Your task to perform on an android device: Toggle the flashlight Image 0: 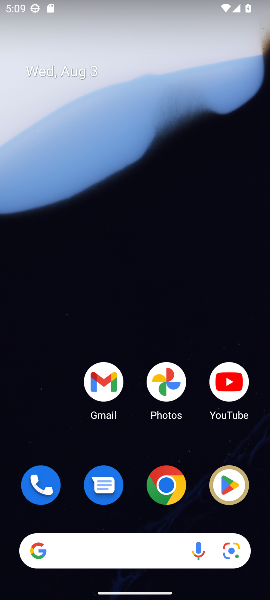
Step 0: drag from (135, 515) to (150, 60)
Your task to perform on an android device: Toggle the flashlight Image 1: 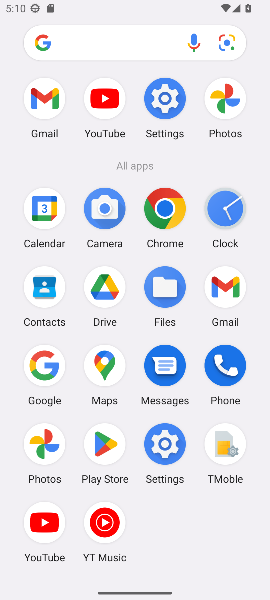
Step 1: click (166, 105)
Your task to perform on an android device: Toggle the flashlight Image 2: 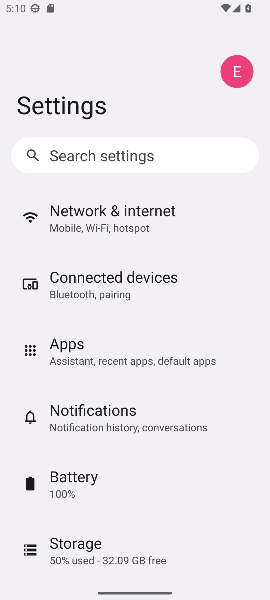
Step 2: click (133, 149)
Your task to perform on an android device: Toggle the flashlight Image 3: 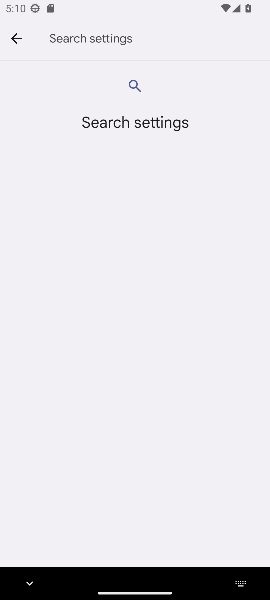
Step 3: type "flashlight"
Your task to perform on an android device: Toggle the flashlight Image 4: 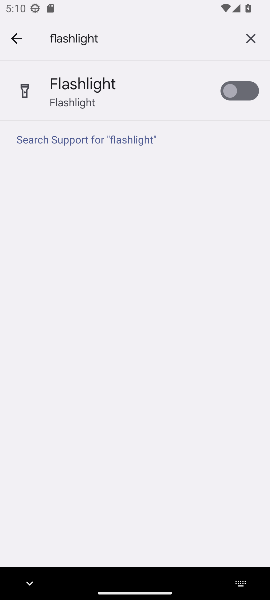
Step 4: click (259, 89)
Your task to perform on an android device: Toggle the flashlight Image 5: 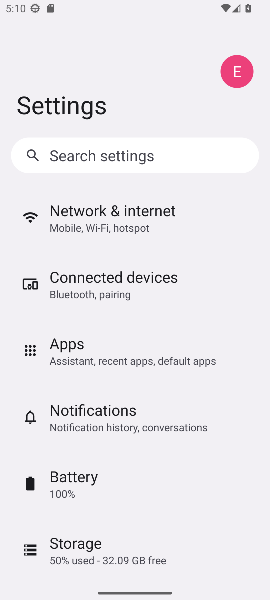
Step 5: click (162, 162)
Your task to perform on an android device: Toggle the flashlight Image 6: 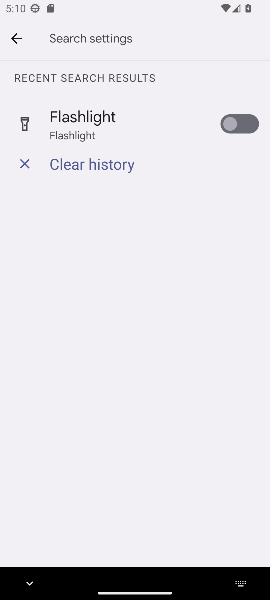
Step 6: type "flashlight"
Your task to perform on an android device: Toggle the flashlight Image 7: 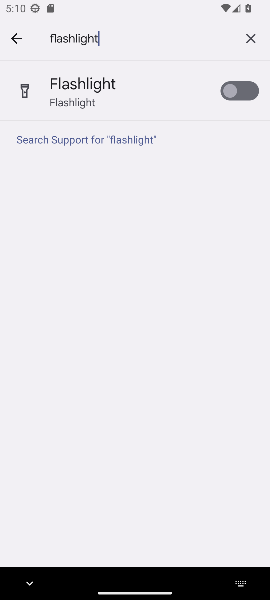
Step 7: click (237, 95)
Your task to perform on an android device: Toggle the flashlight Image 8: 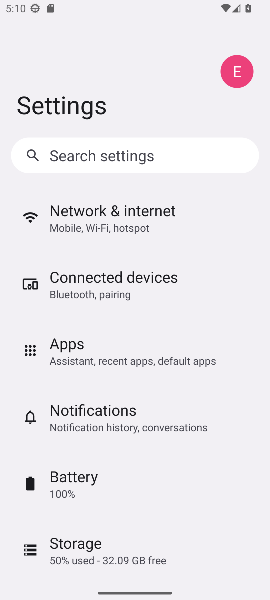
Step 8: task complete